Your task to perform on an android device: Open the phone app and click the voicemail tab. Image 0: 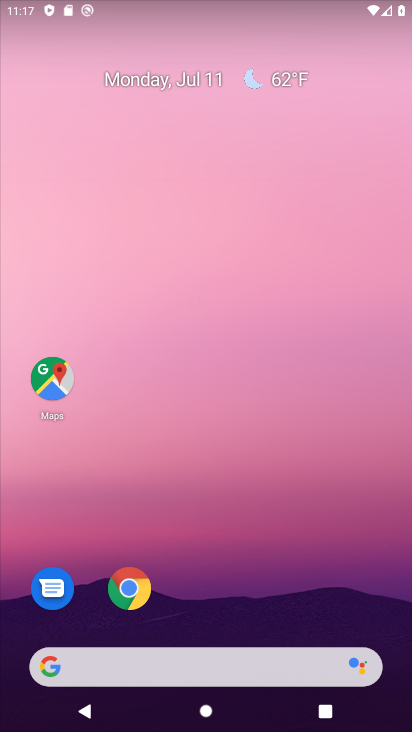
Step 0: drag from (196, 552) to (203, 176)
Your task to perform on an android device: Open the phone app and click the voicemail tab. Image 1: 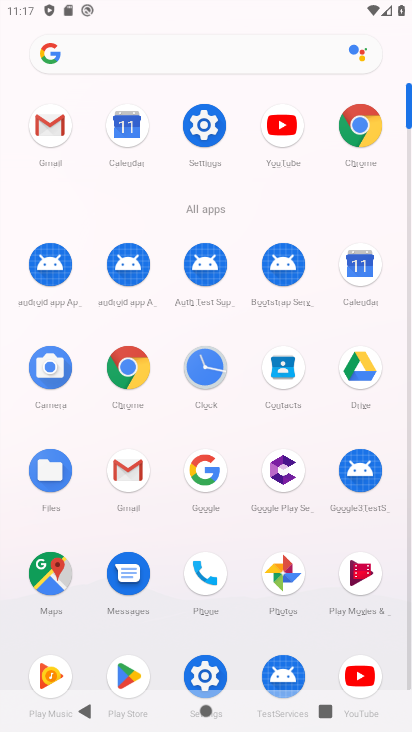
Step 1: click (199, 575)
Your task to perform on an android device: Open the phone app and click the voicemail tab. Image 2: 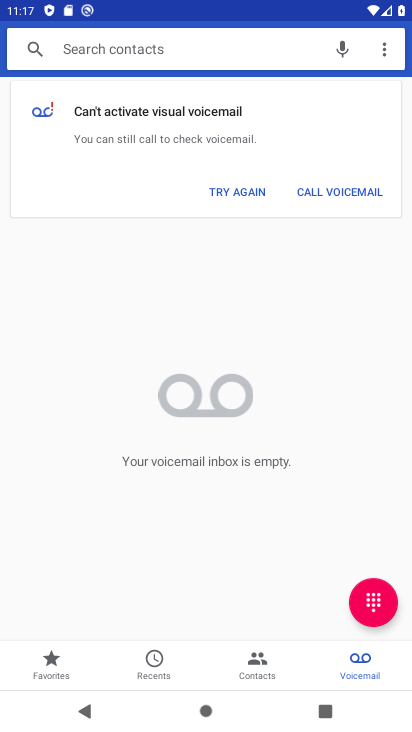
Step 2: click (365, 673)
Your task to perform on an android device: Open the phone app and click the voicemail tab. Image 3: 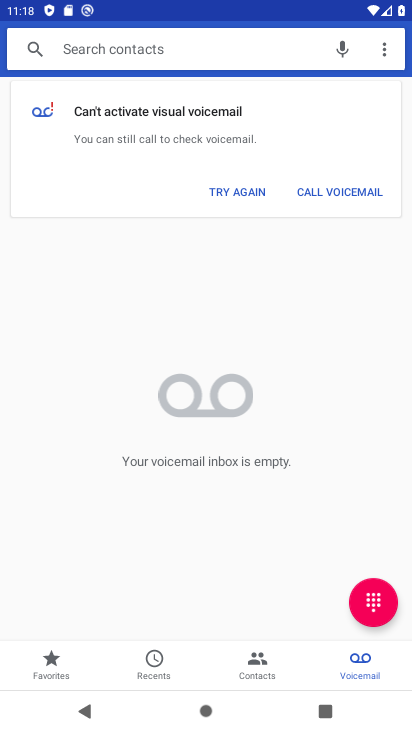
Step 3: task complete